Your task to perform on an android device: Open my contact list Image 0: 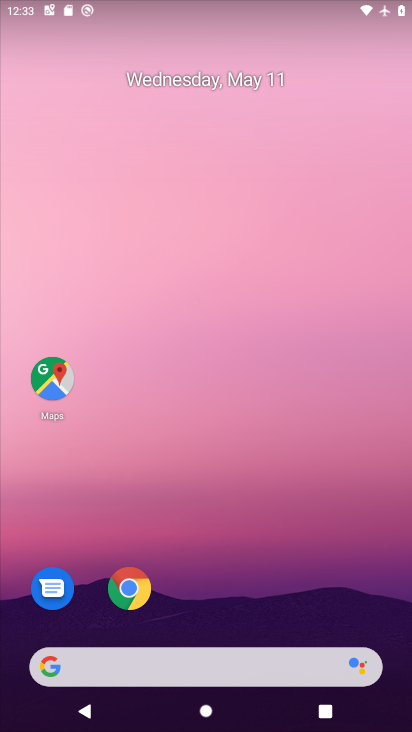
Step 0: drag from (259, 599) to (259, 325)
Your task to perform on an android device: Open my contact list Image 1: 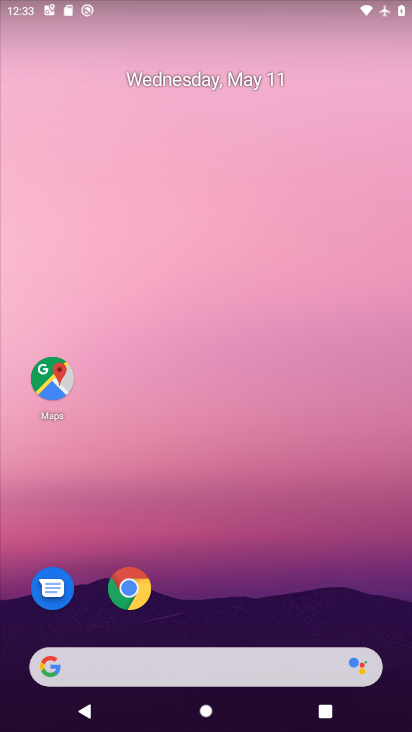
Step 1: drag from (229, 649) to (201, 344)
Your task to perform on an android device: Open my contact list Image 2: 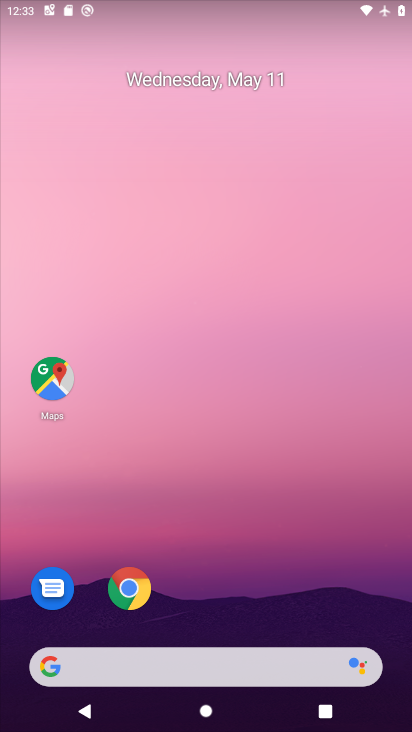
Step 2: drag from (138, 643) to (142, 298)
Your task to perform on an android device: Open my contact list Image 3: 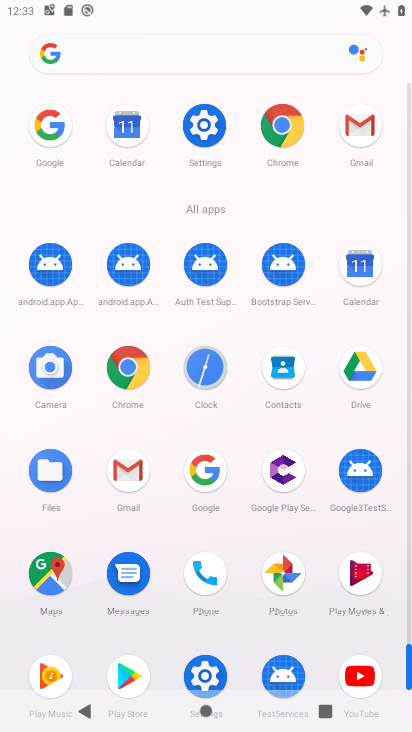
Step 3: click (271, 371)
Your task to perform on an android device: Open my contact list Image 4: 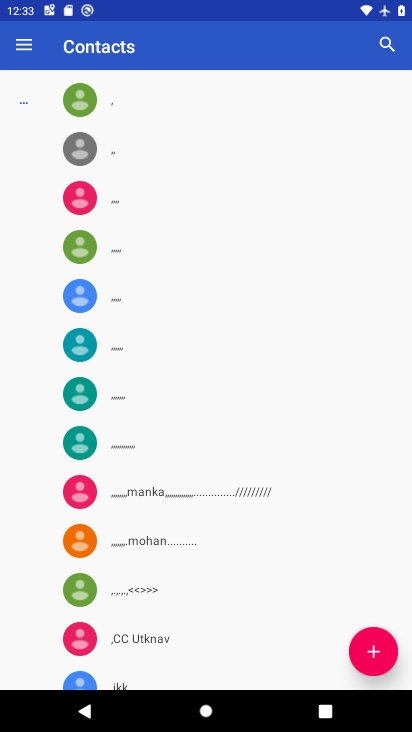
Step 4: task complete